Your task to perform on an android device: Open notification settings Image 0: 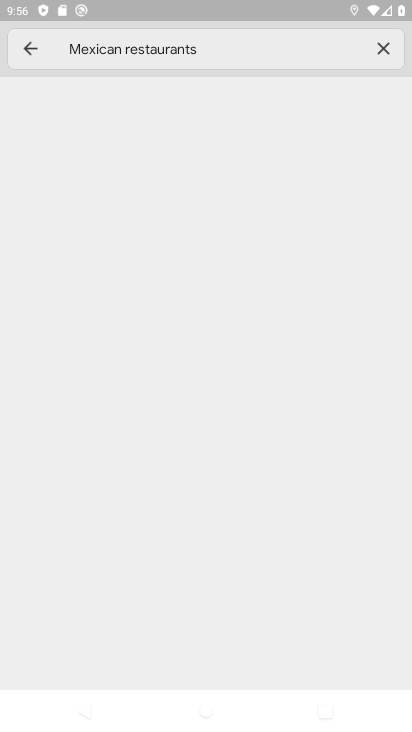
Step 0: press home button
Your task to perform on an android device: Open notification settings Image 1: 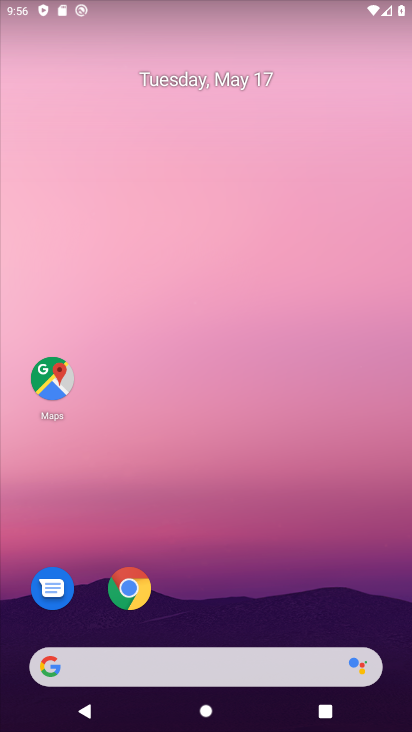
Step 1: drag from (229, 724) to (242, 133)
Your task to perform on an android device: Open notification settings Image 2: 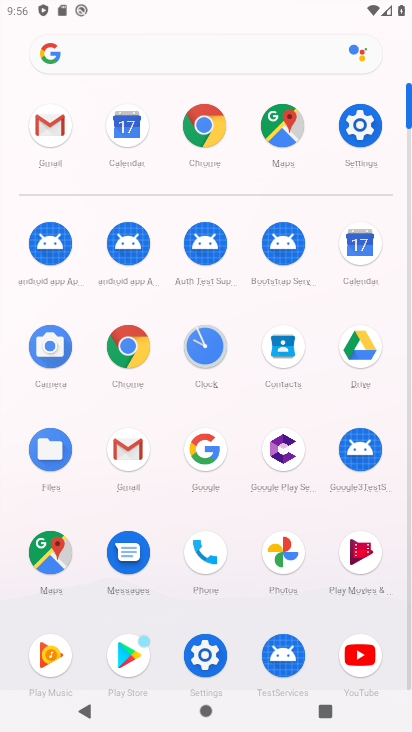
Step 2: click (362, 125)
Your task to perform on an android device: Open notification settings Image 3: 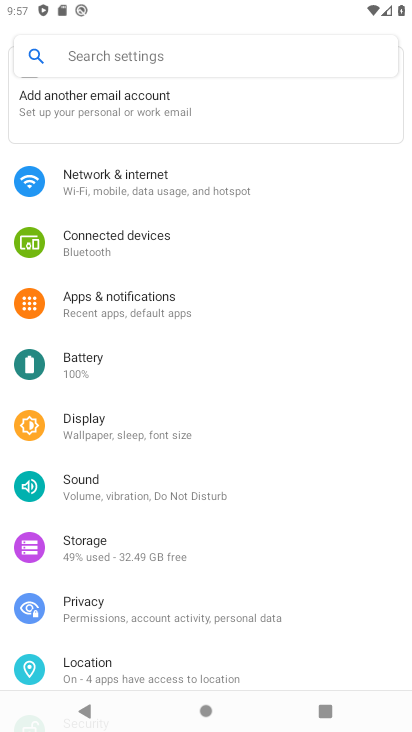
Step 3: click (124, 307)
Your task to perform on an android device: Open notification settings Image 4: 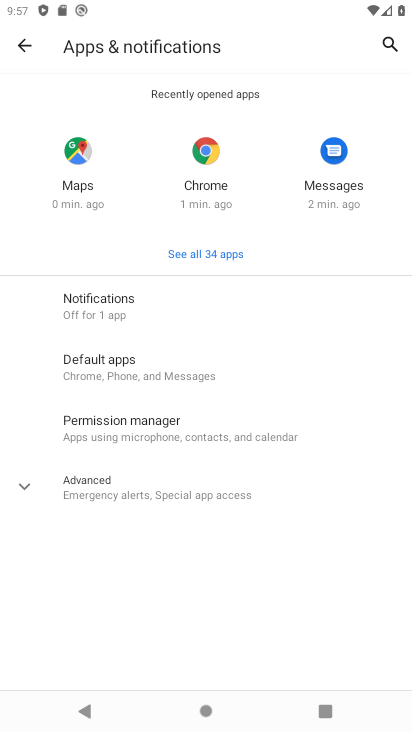
Step 4: click (113, 302)
Your task to perform on an android device: Open notification settings Image 5: 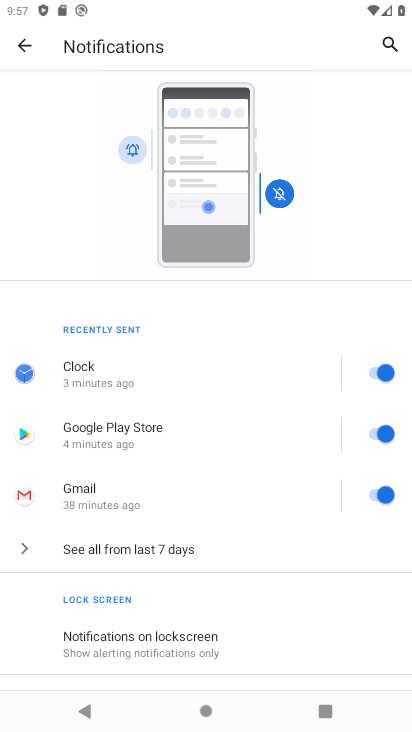
Step 5: task complete